Your task to perform on an android device: change your default location settings in chrome Image 0: 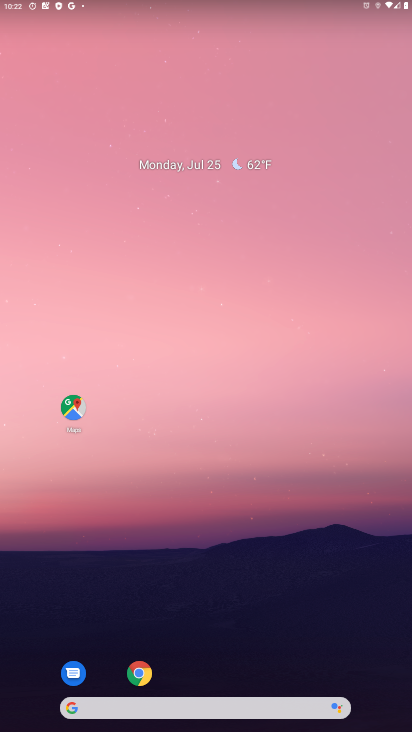
Step 0: drag from (232, 645) to (267, 114)
Your task to perform on an android device: change your default location settings in chrome Image 1: 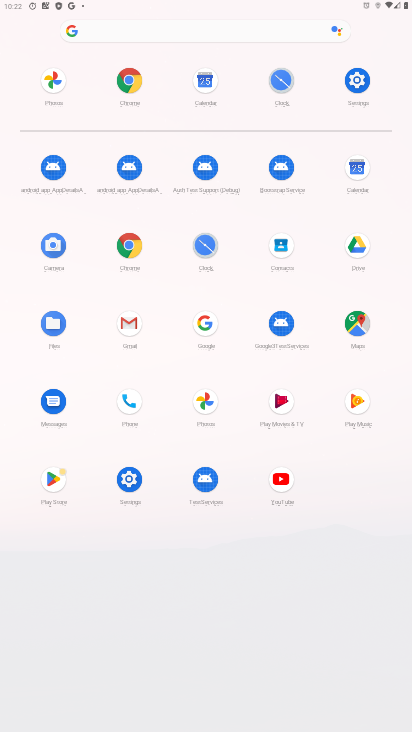
Step 1: click (129, 241)
Your task to perform on an android device: change your default location settings in chrome Image 2: 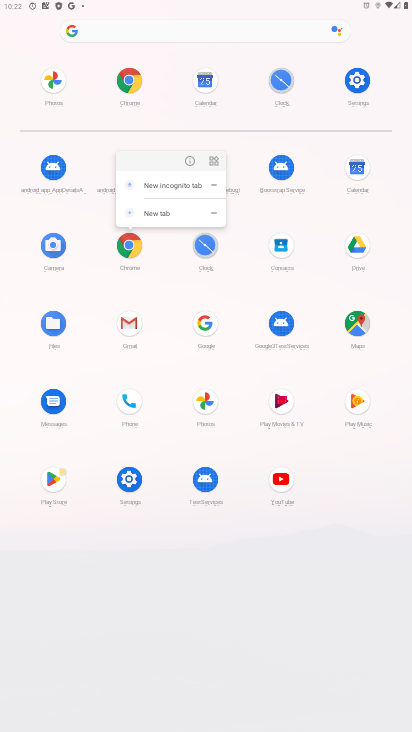
Step 2: click (185, 158)
Your task to perform on an android device: change your default location settings in chrome Image 3: 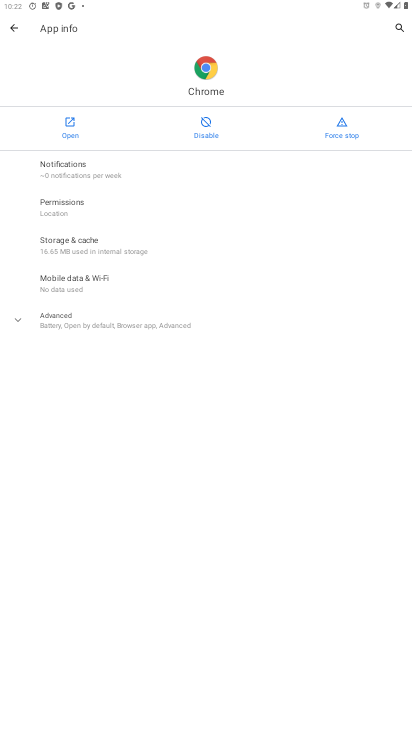
Step 3: click (90, 128)
Your task to perform on an android device: change your default location settings in chrome Image 4: 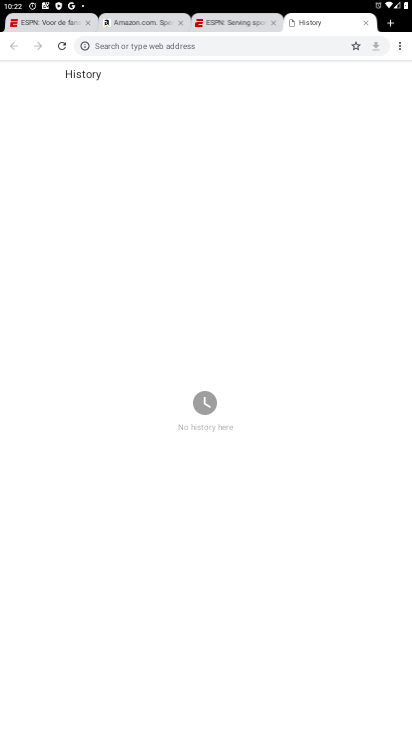
Step 4: drag from (397, 42) to (346, 210)
Your task to perform on an android device: change your default location settings in chrome Image 5: 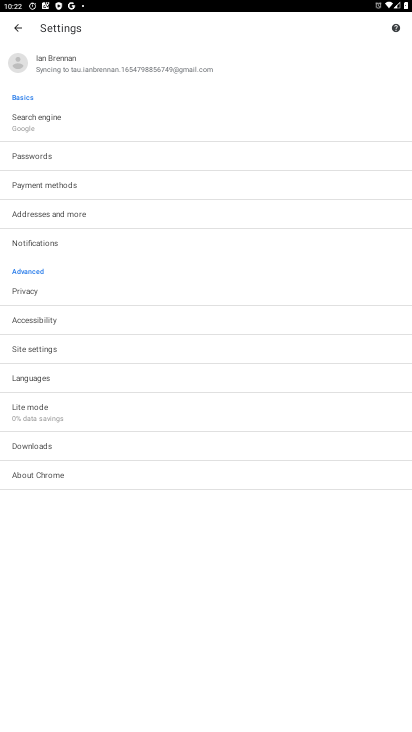
Step 5: click (49, 353)
Your task to perform on an android device: change your default location settings in chrome Image 6: 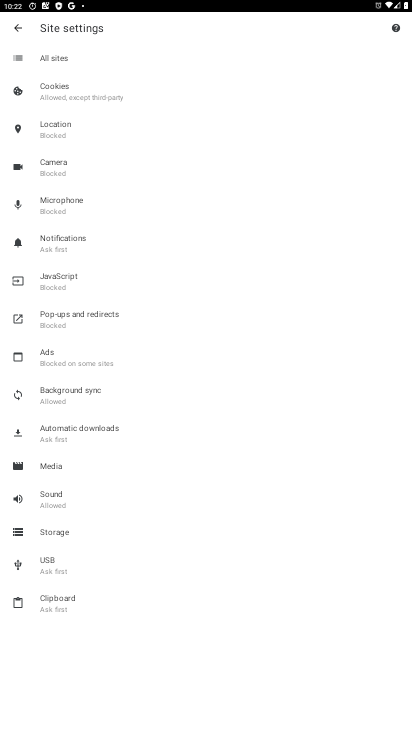
Step 6: drag from (123, 535) to (165, 292)
Your task to perform on an android device: change your default location settings in chrome Image 7: 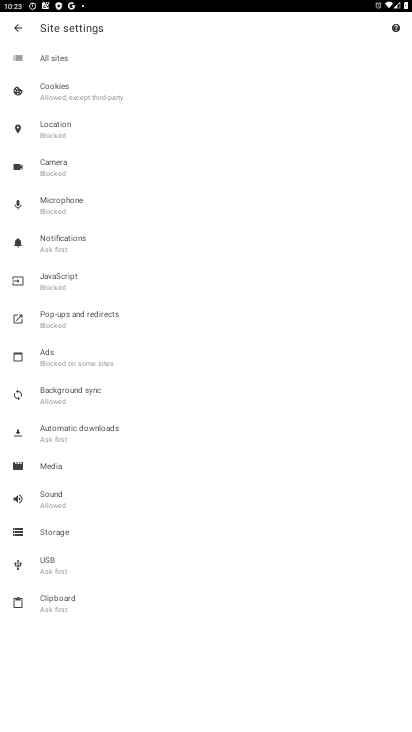
Step 7: click (70, 123)
Your task to perform on an android device: change your default location settings in chrome Image 8: 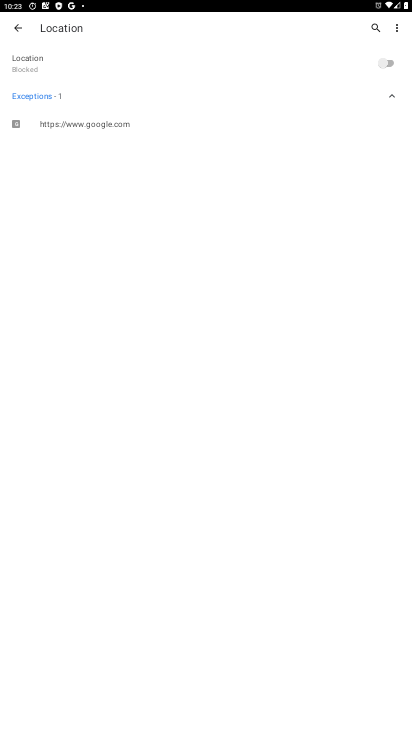
Step 8: click (379, 66)
Your task to perform on an android device: change your default location settings in chrome Image 9: 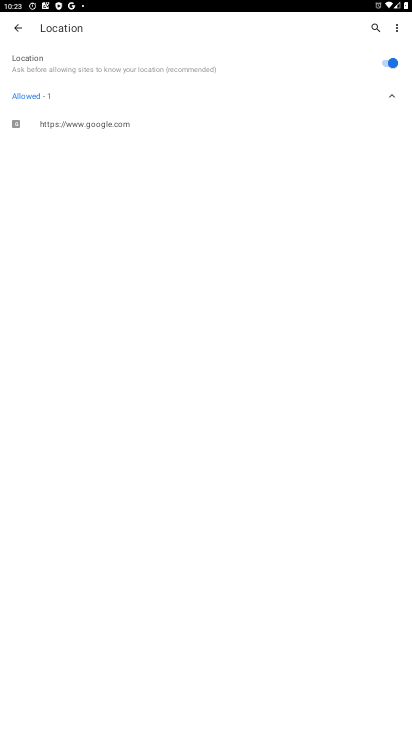
Step 9: task complete